Your task to perform on an android device: Search for flights from Buenos aires to Helsinki Image 0: 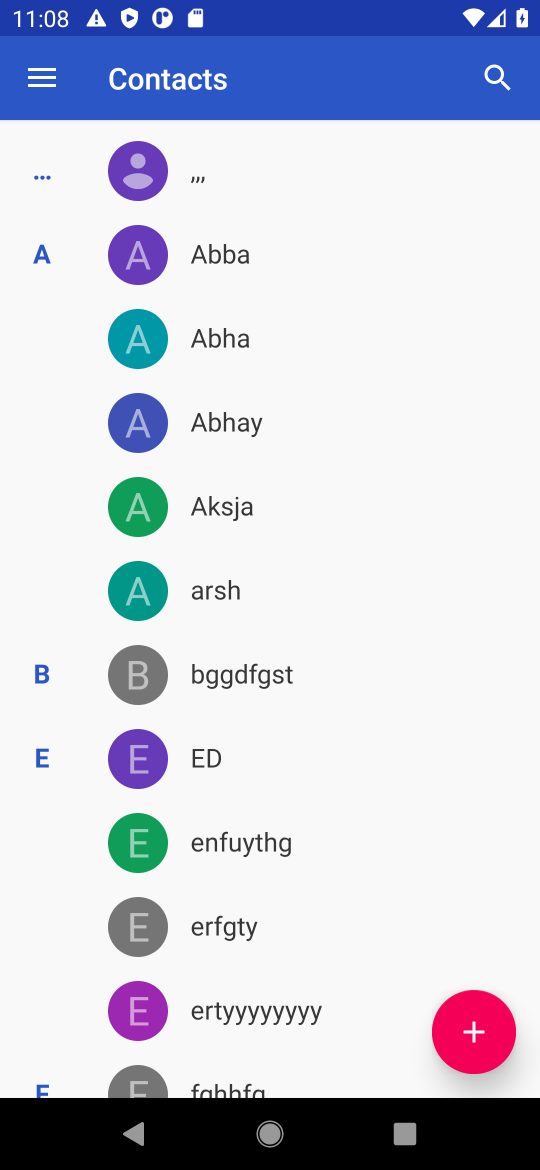
Step 0: press home button
Your task to perform on an android device: Search for flights from Buenos aires to Helsinki Image 1: 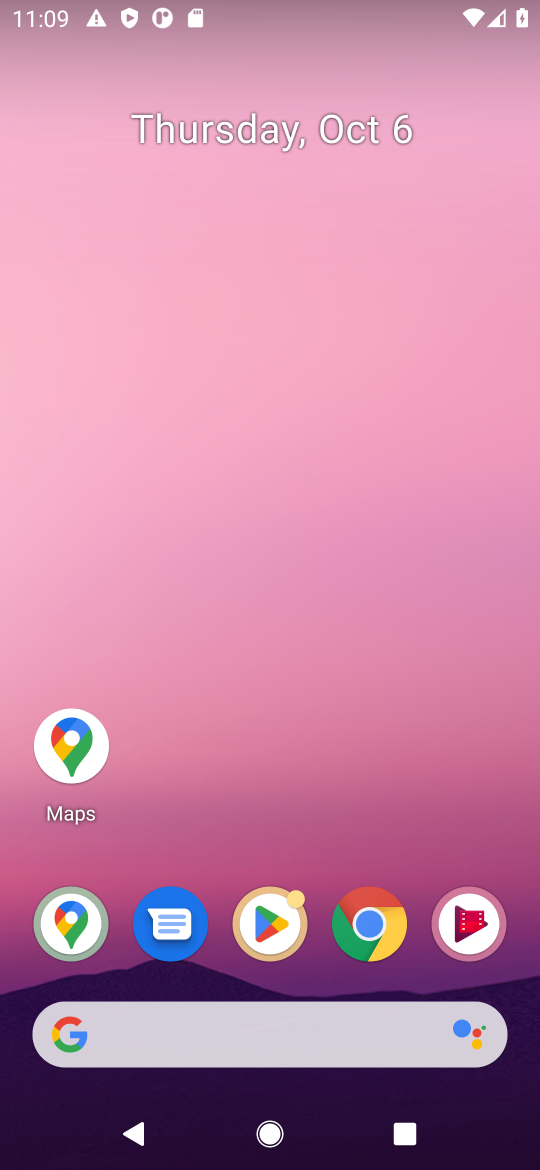
Step 1: click (380, 925)
Your task to perform on an android device: Search for flights from Buenos aires to Helsinki Image 2: 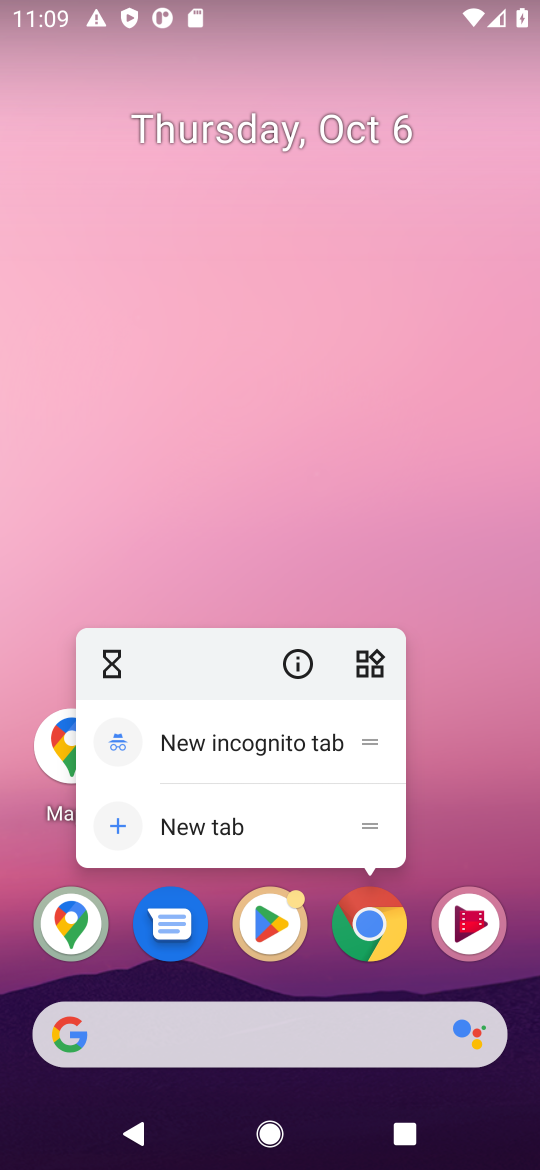
Step 2: click (371, 918)
Your task to perform on an android device: Search for flights from Buenos aires to Helsinki Image 3: 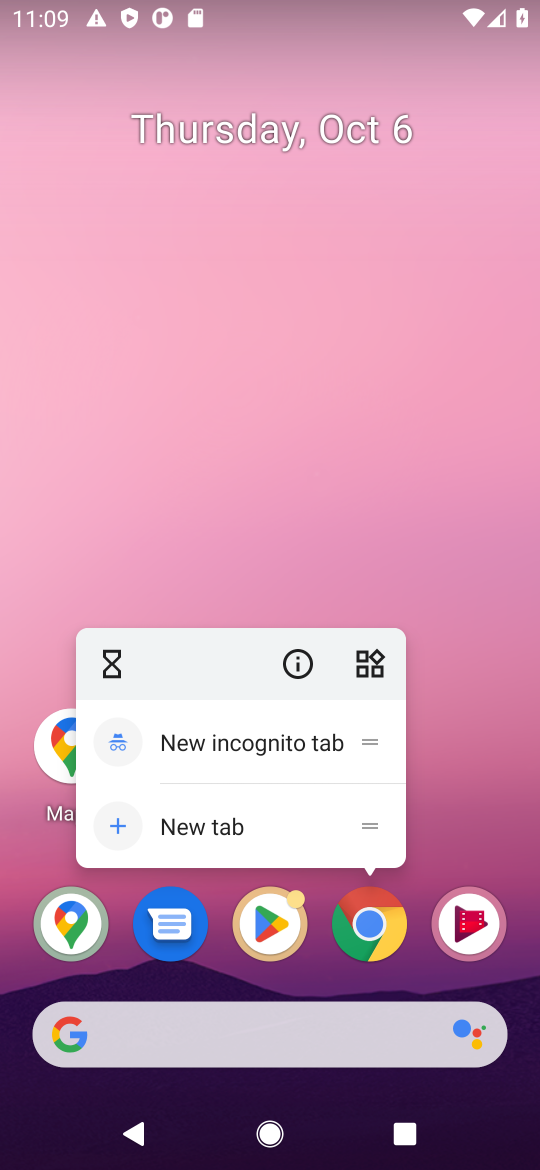
Step 3: click (366, 911)
Your task to perform on an android device: Search for flights from Buenos aires to Helsinki Image 4: 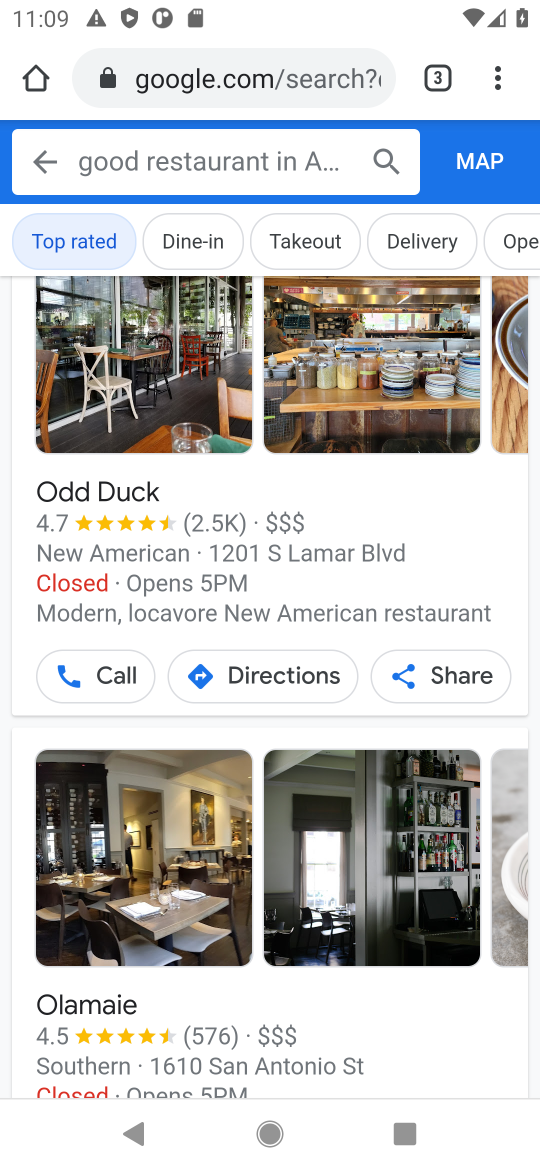
Step 4: click (363, 77)
Your task to perform on an android device: Search for flights from Buenos aires to Helsinki Image 5: 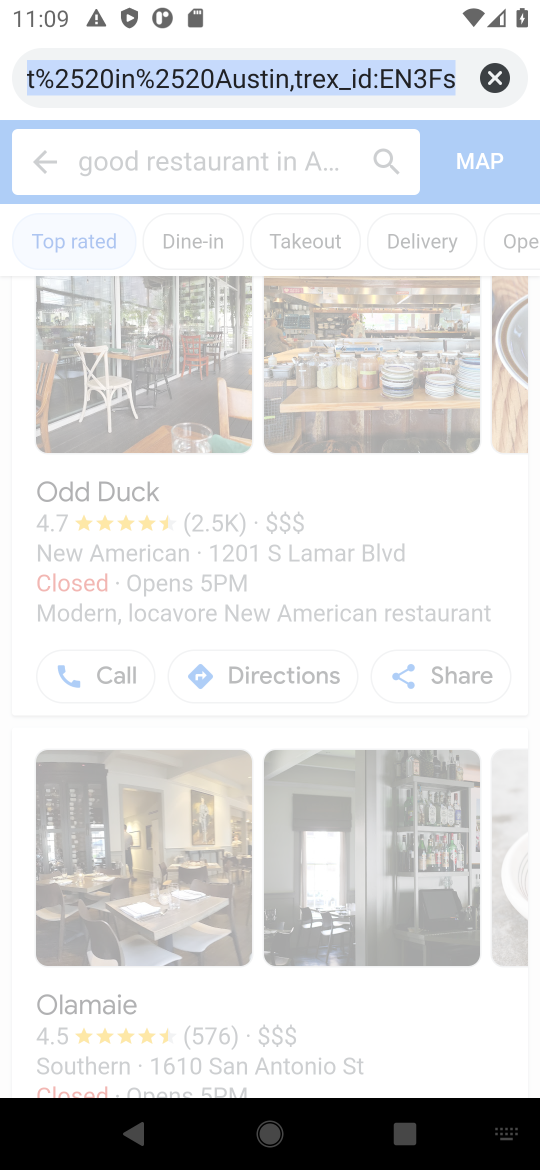
Step 5: click (505, 78)
Your task to perform on an android device: Search for flights from Buenos aires to Helsinki Image 6: 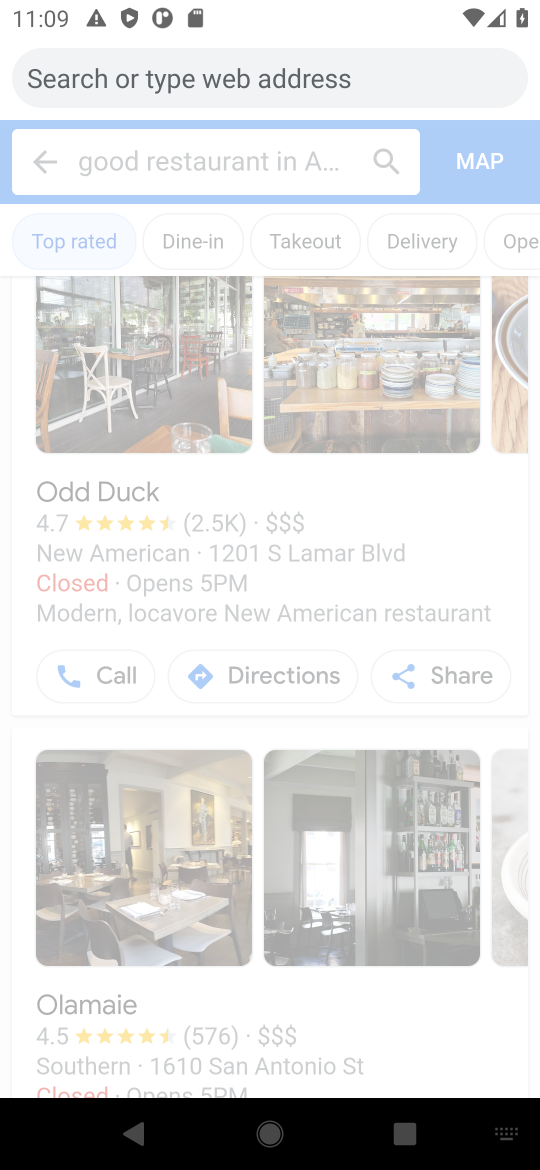
Step 6: type "flights from Buenos aires to Helsinki"
Your task to perform on an android device: Search for flights from Buenos aires to Helsinki Image 7: 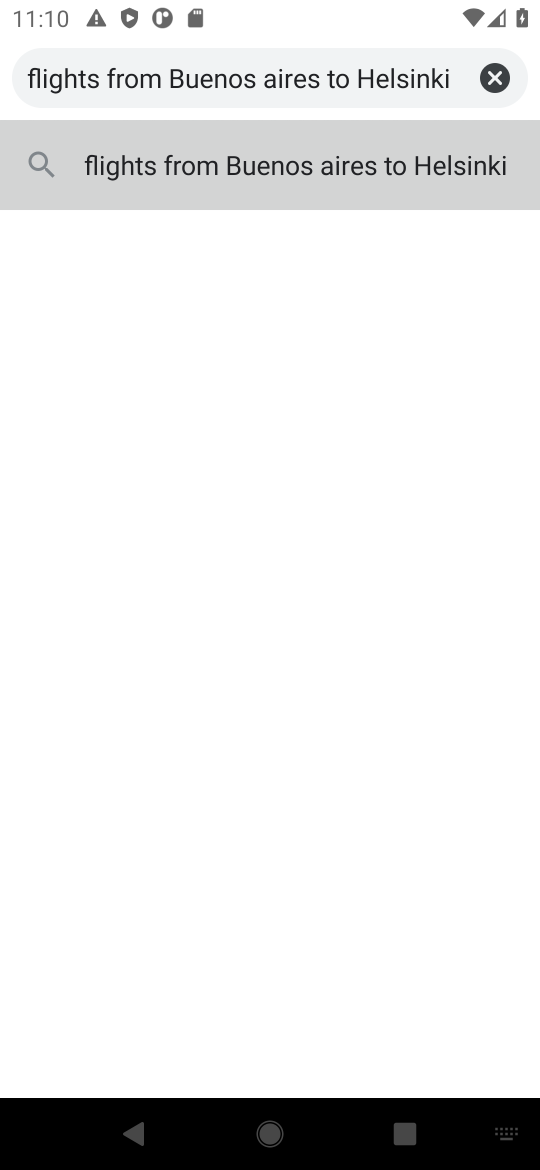
Step 7: click (146, 161)
Your task to perform on an android device: Search for flights from Buenos aires to Helsinki Image 8: 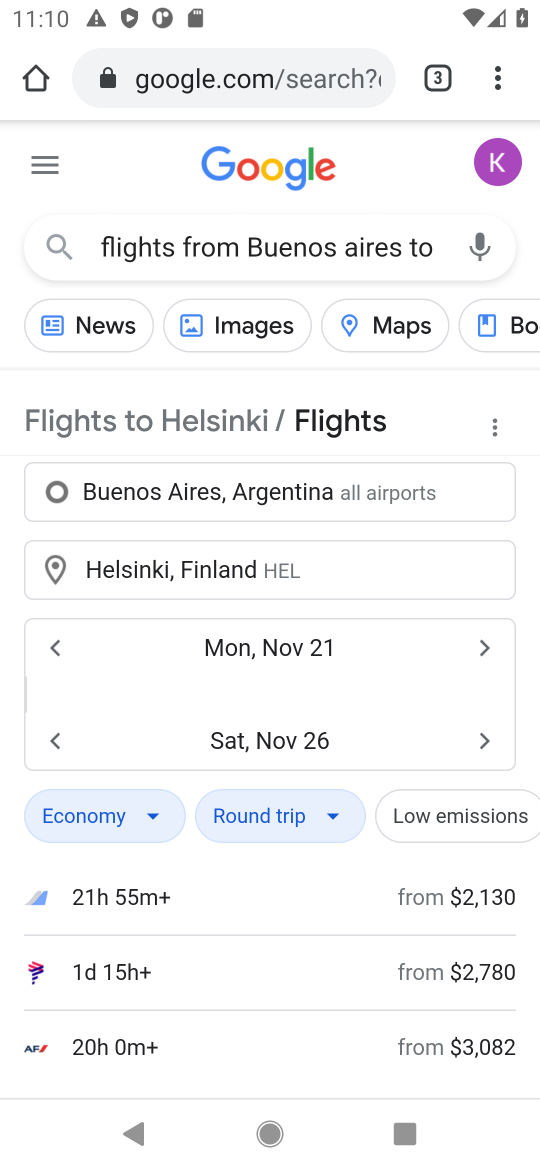
Step 8: drag from (241, 1000) to (446, 341)
Your task to perform on an android device: Search for flights from Buenos aires to Helsinki Image 9: 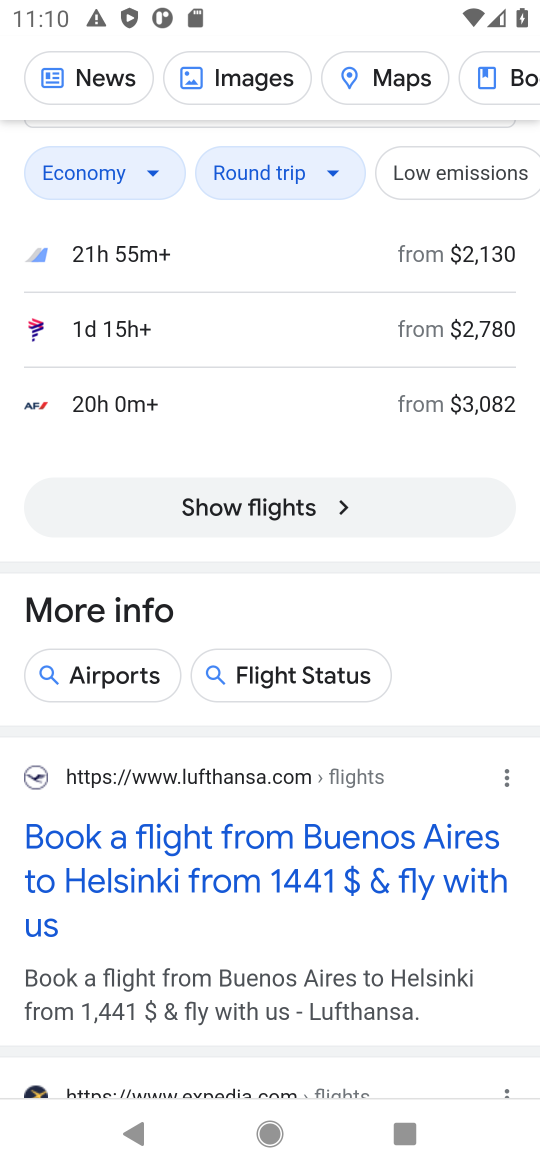
Step 9: click (271, 507)
Your task to perform on an android device: Search for flights from Buenos aires to Helsinki Image 10: 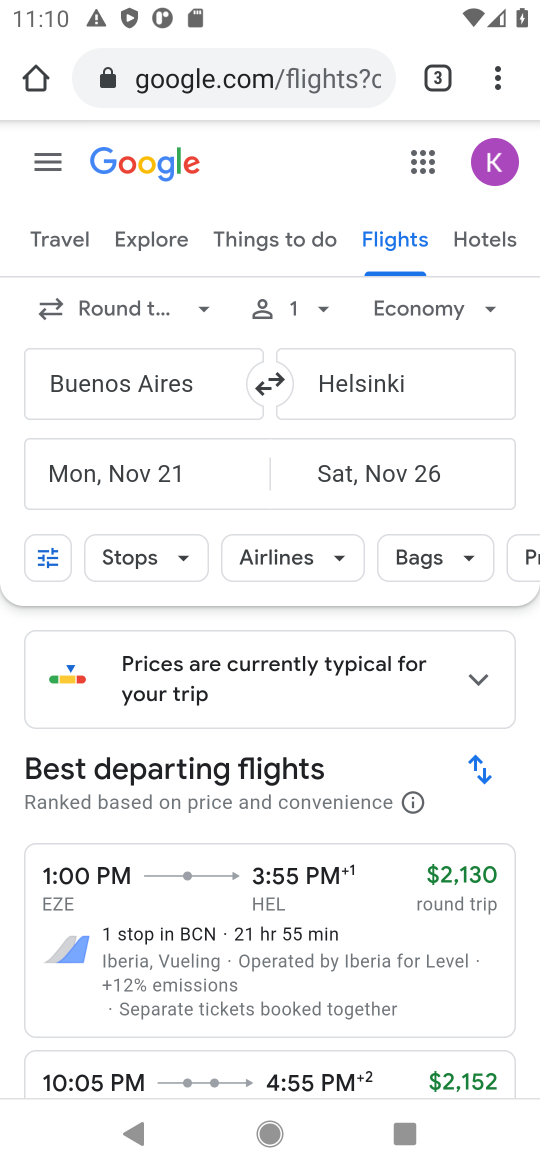
Step 10: task complete